Your task to perform on an android device: turn on improve location accuracy Image 0: 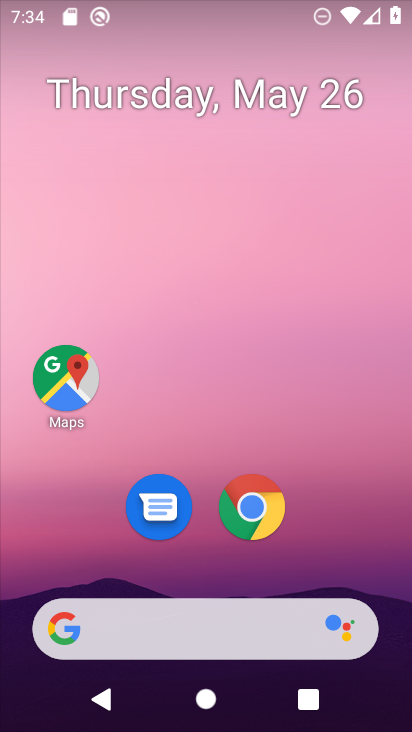
Step 0: drag from (222, 551) to (204, 202)
Your task to perform on an android device: turn on improve location accuracy Image 1: 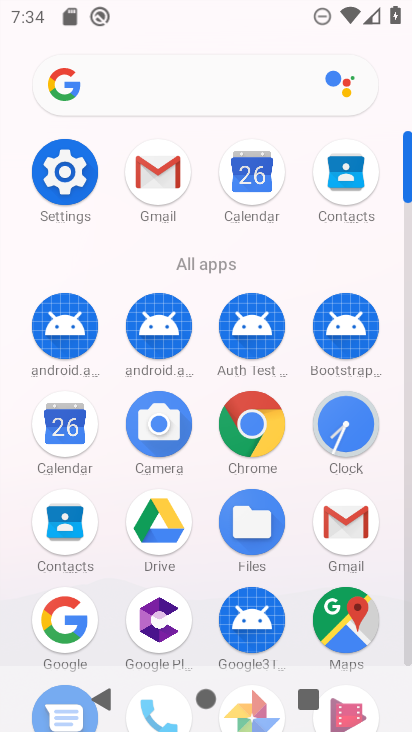
Step 1: click (62, 170)
Your task to perform on an android device: turn on improve location accuracy Image 2: 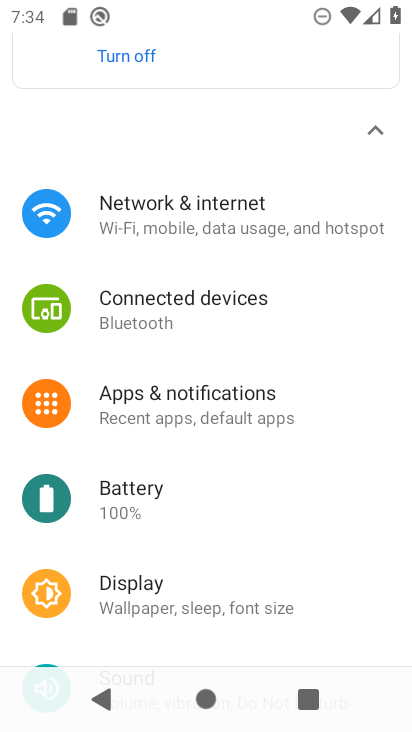
Step 2: drag from (202, 579) to (174, 191)
Your task to perform on an android device: turn on improve location accuracy Image 3: 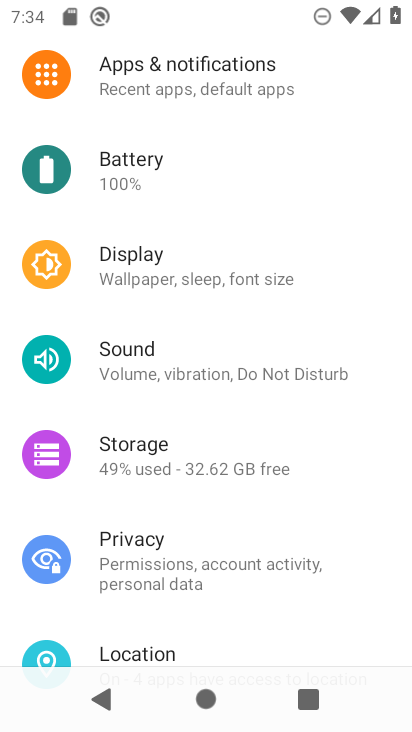
Step 3: drag from (160, 592) to (155, 366)
Your task to perform on an android device: turn on improve location accuracy Image 4: 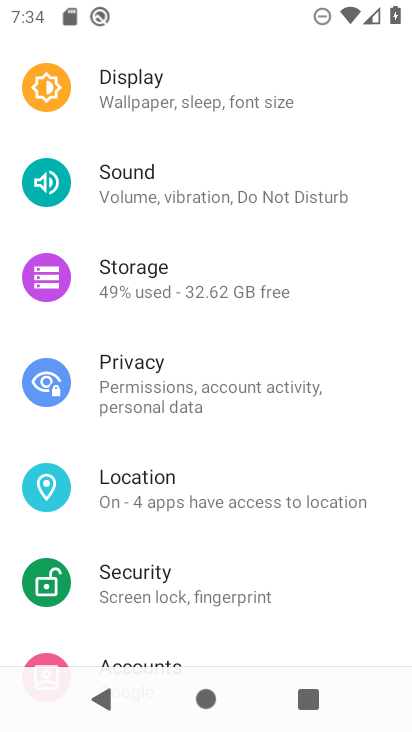
Step 4: click (134, 494)
Your task to perform on an android device: turn on improve location accuracy Image 5: 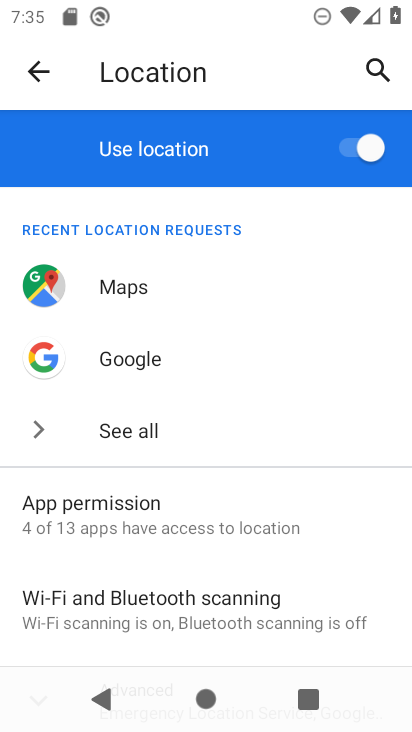
Step 5: drag from (109, 571) to (116, 274)
Your task to perform on an android device: turn on improve location accuracy Image 6: 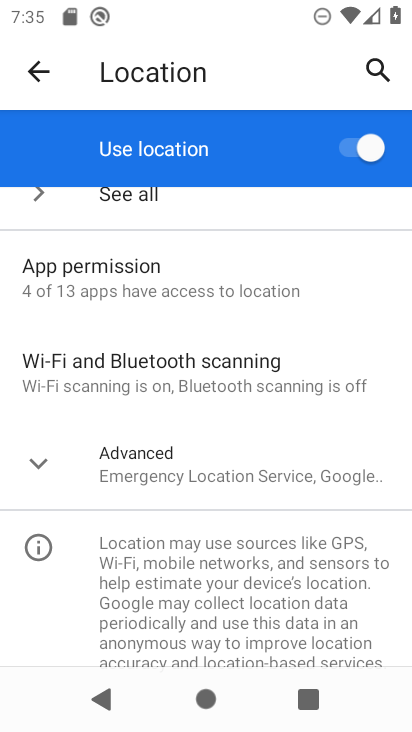
Step 6: click (115, 468)
Your task to perform on an android device: turn on improve location accuracy Image 7: 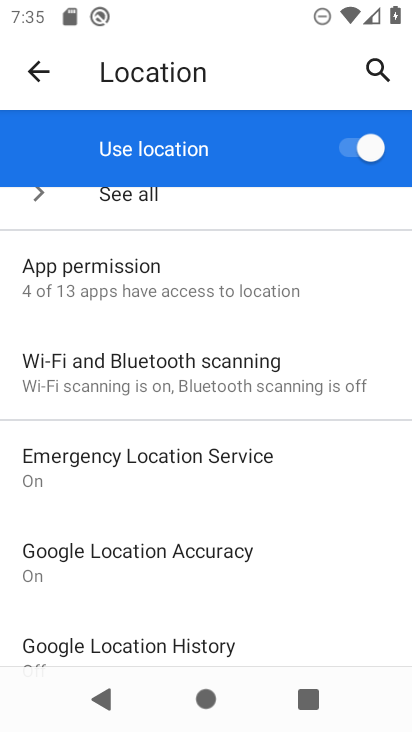
Step 7: click (89, 566)
Your task to perform on an android device: turn on improve location accuracy Image 8: 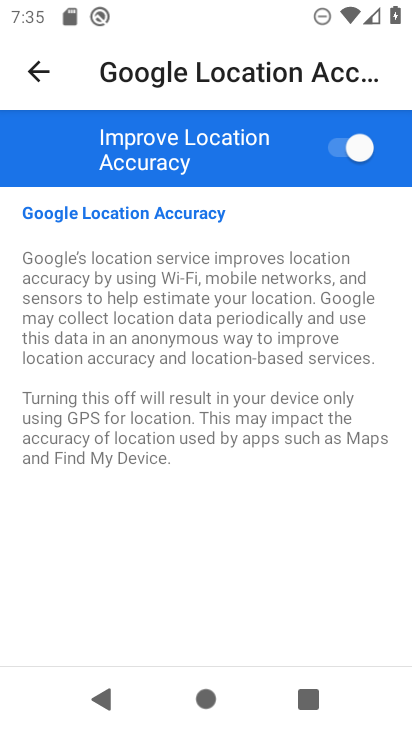
Step 8: task complete